Your task to perform on an android device: Open Reddit.com Image 0: 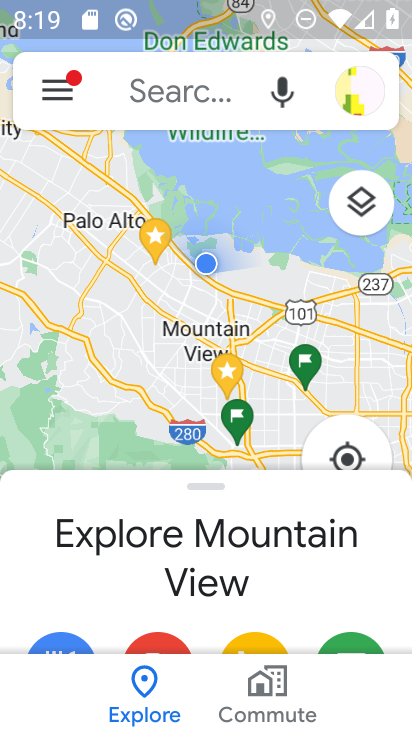
Step 0: press home button
Your task to perform on an android device: Open Reddit.com Image 1: 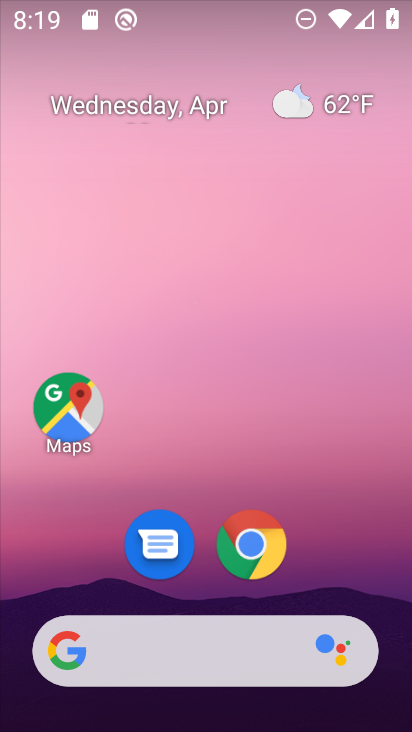
Step 1: click (167, 642)
Your task to perform on an android device: Open Reddit.com Image 2: 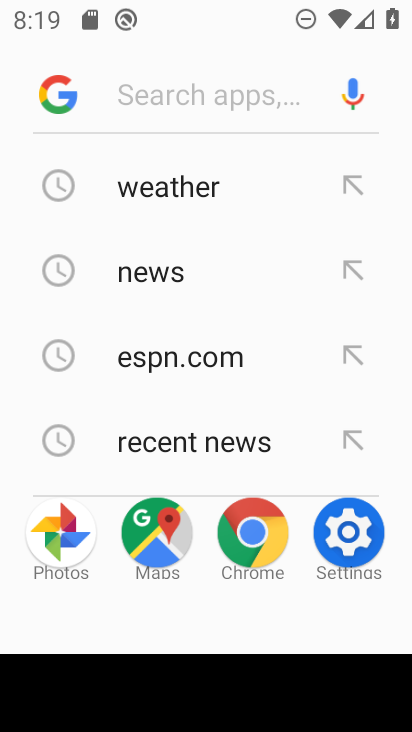
Step 2: type "Reddit.com"
Your task to perform on an android device: Open Reddit.com Image 3: 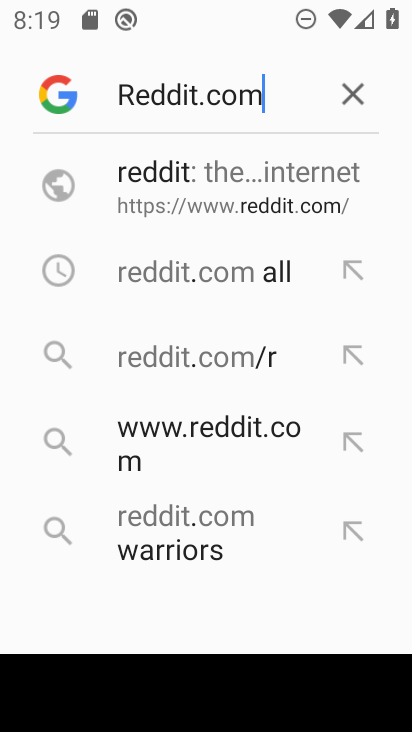
Step 3: drag from (236, 504) to (286, 179)
Your task to perform on an android device: Open Reddit.com Image 4: 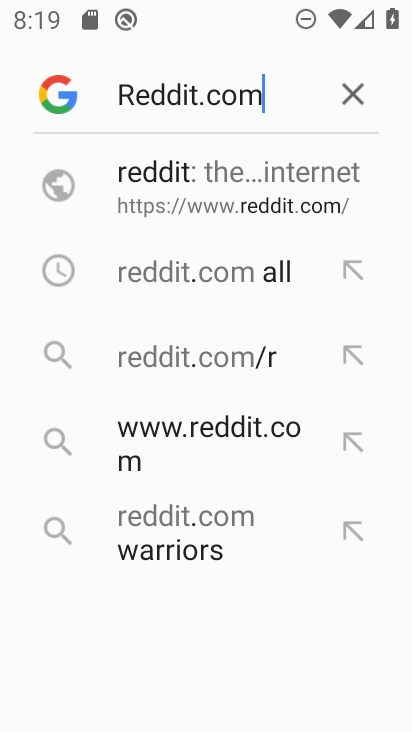
Step 4: click (201, 182)
Your task to perform on an android device: Open Reddit.com Image 5: 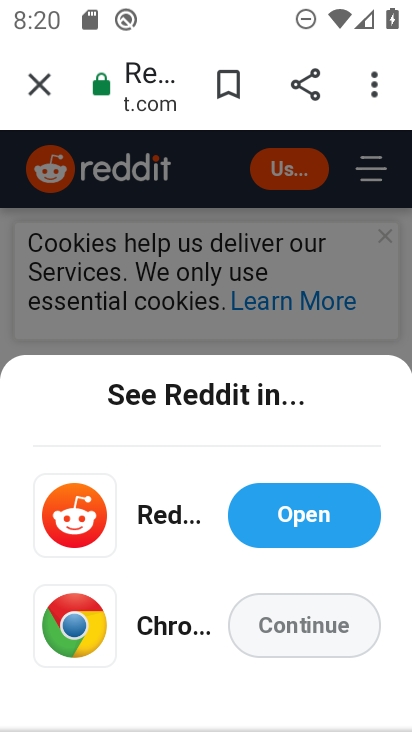
Step 5: click (306, 615)
Your task to perform on an android device: Open Reddit.com Image 6: 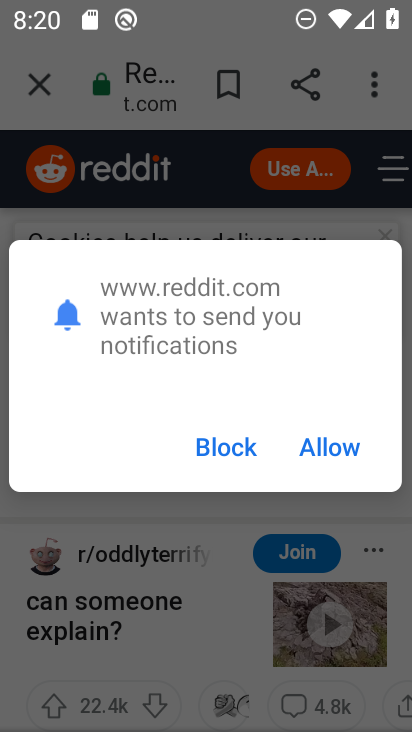
Step 6: task complete